Your task to perform on an android device: check google app version Image 0: 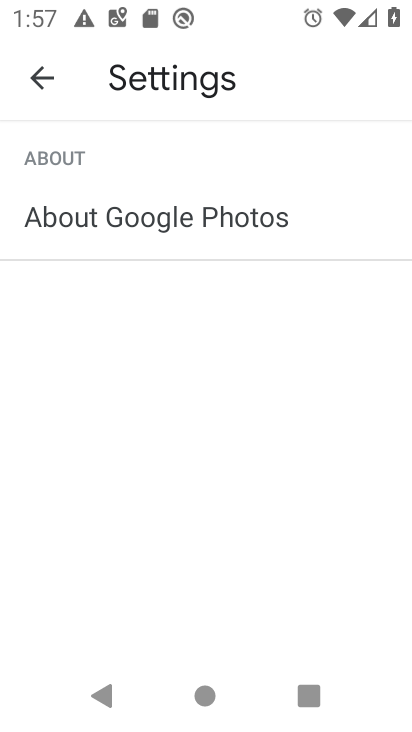
Step 0: press back button
Your task to perform on an android device: check google app version Image 1: 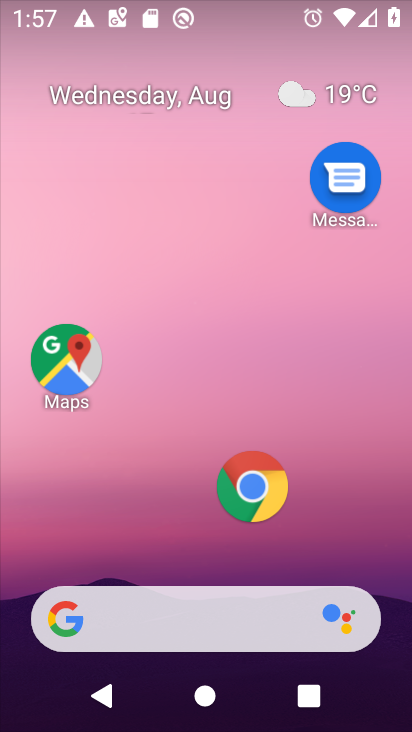
Step 1: drag from (154, 554) to (230, 58)
Your task to perform on an android device: check google app version Image 2: 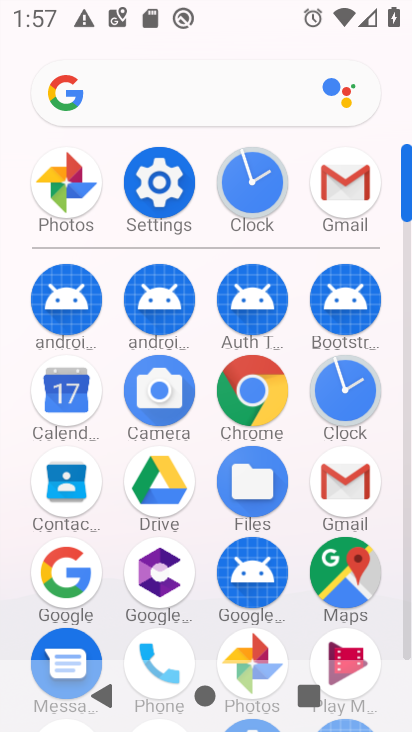
Step 2: click (66, 572)
Your task to perform on an android device: check google app version Image 3: 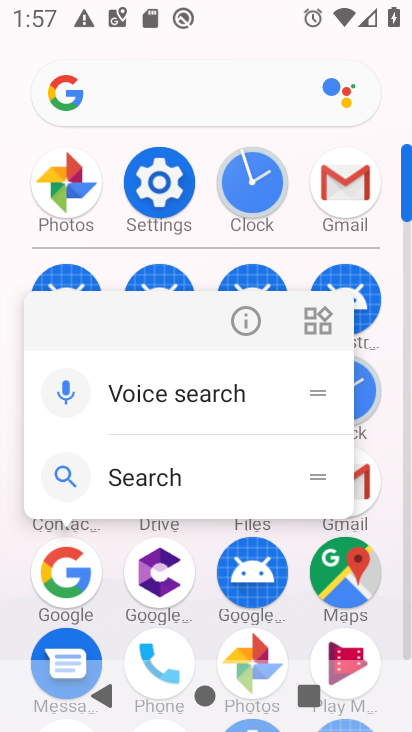
Step 3: click (246, 322)
Your task to perform on an android device: check google app version Image 4: 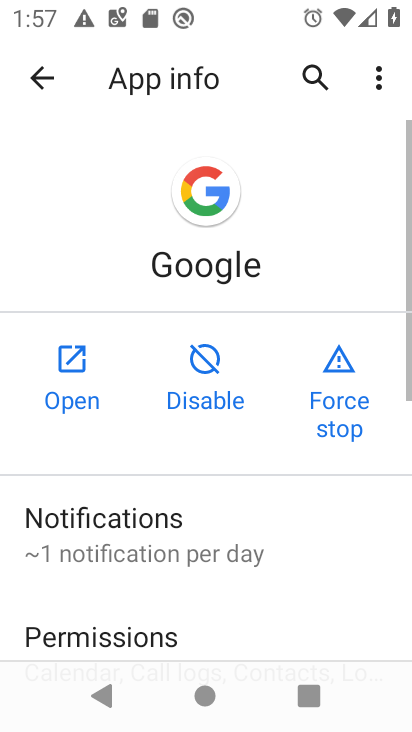
Step 4: drag from (132, 604) to (258, 27)
Your task to perform on an android device: check google app version Image 5: 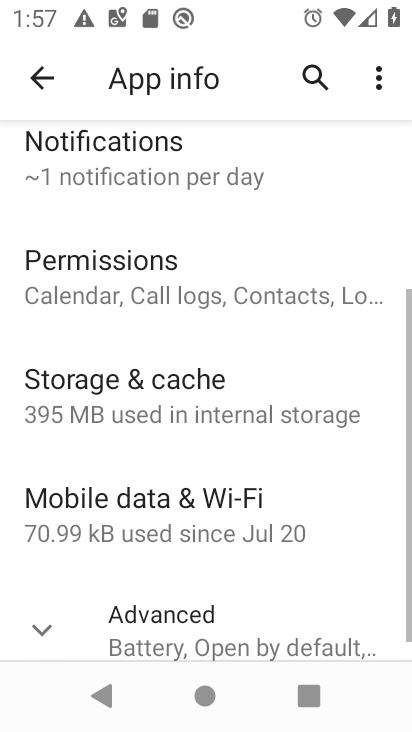
Step 5: drag from (168, 625) to (251, 15)
Your task to perform on an android device: check google app version Image 6: 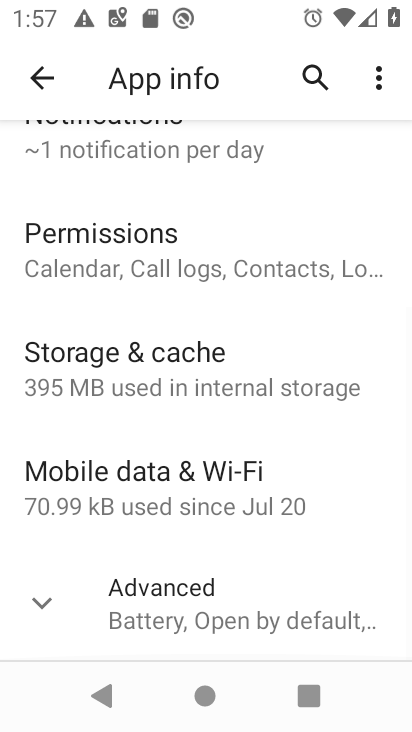
Step 6: click (171, 590)
Your task to perform on an android device: check google app version Image 7: 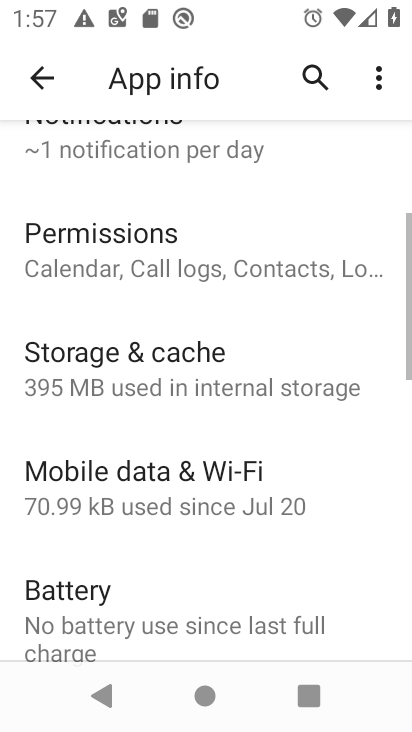
Step 7: task complete